Your task to perform on an android device: show emergency info Image 0: 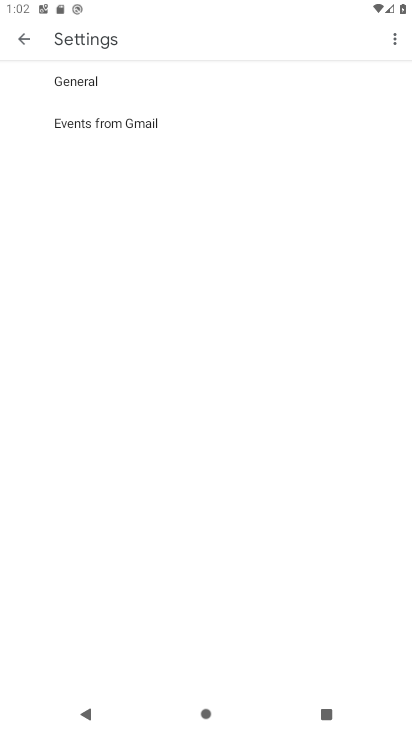
Step 0: drag from (221, 622) to (403, 511)
Your task to perform on an android device: show emergency info Image 1: 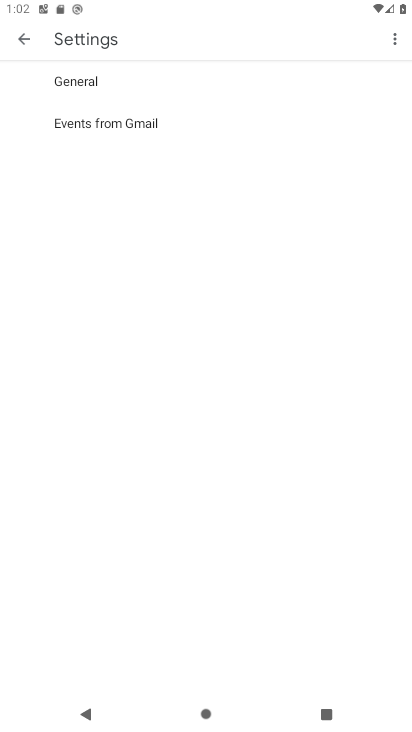
Step 1: press home button
Your task to perform on an android device: show emergency info Image 2: 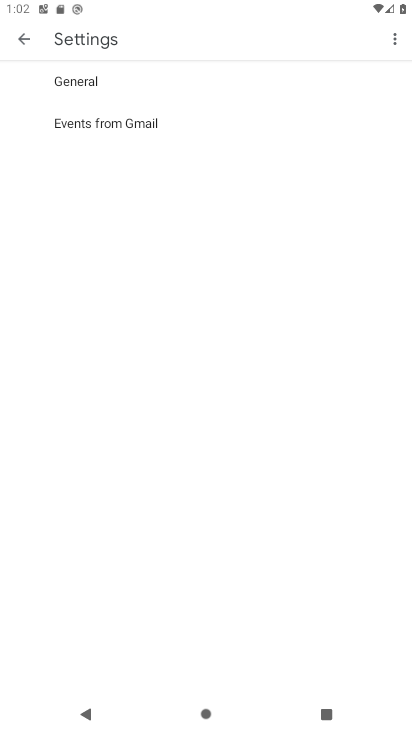
Step 2: drag from (403, 511) to (393, 675)
Your task to perform on an android device: show emergency info Image 3: 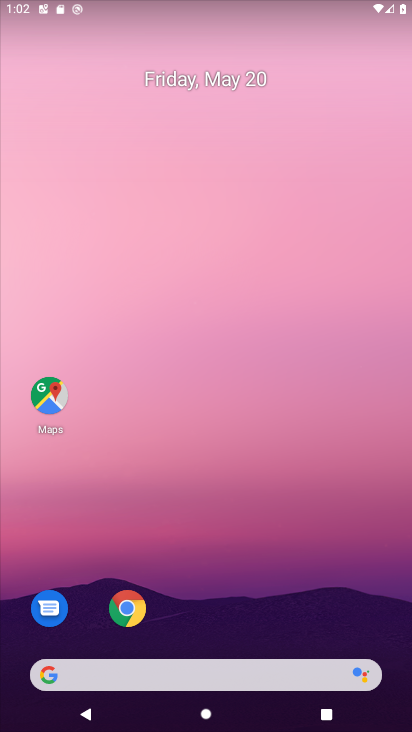
Step 3: drag from (244, 540) to (282, 255)
Your task to perform on an android device: show emergency info Image 4: 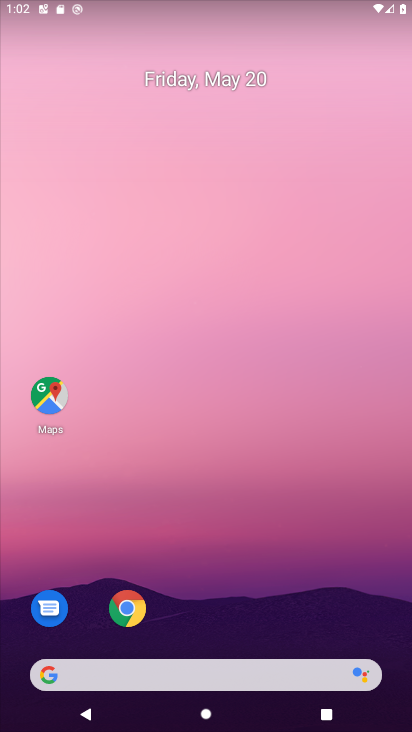
Step 4: drag from (277, 630) to (284, 132)
Your task to perform on an android device: show emergency info Image 5: 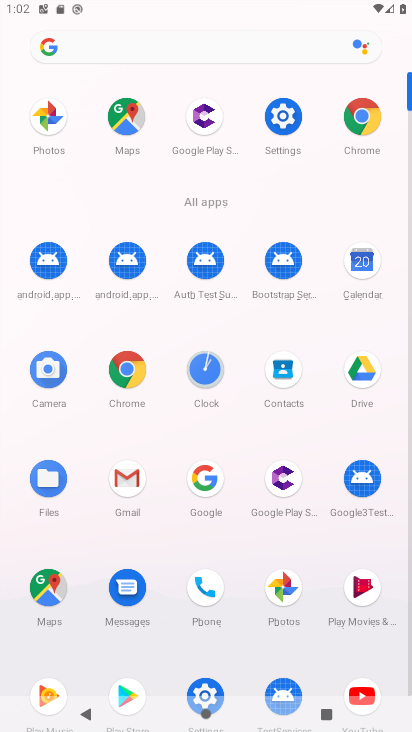
Step 5: click (282, 120)
Your task to perform on an android device: show emergency info Image 6: 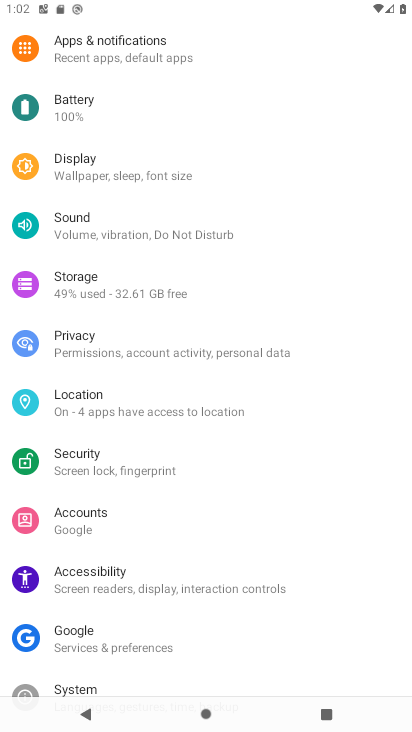
Step 6: drag from (285, 131) to (314, 443)
Your task to perform on an android device: show emergency info Image 7: 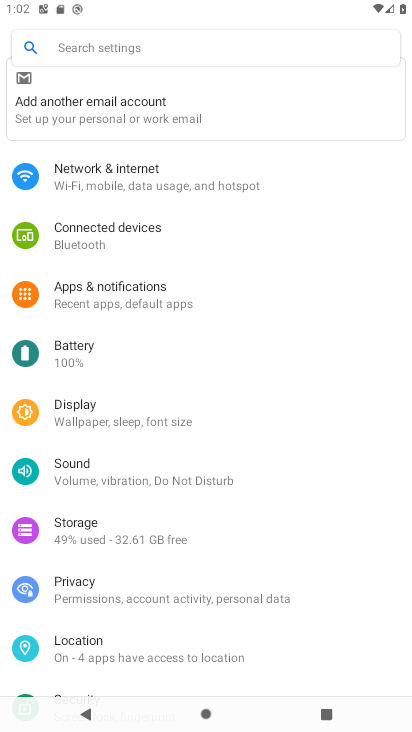
Step 7: click (212, 51)
Your task to perform on an android device: show emergency info Image 8: 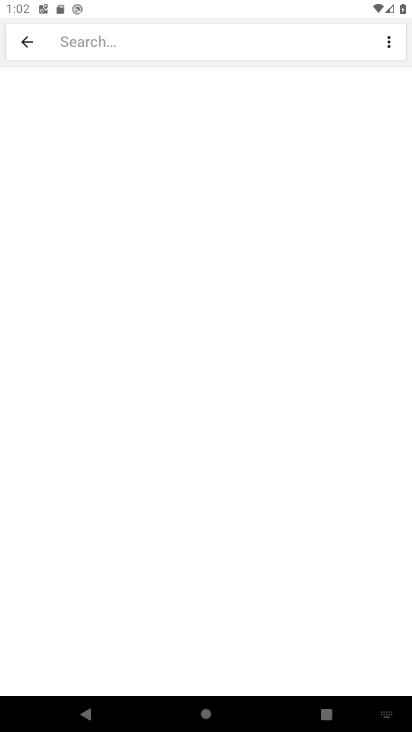
Step 8: type "emergency info"
Your task to perform on an android device: show emergency info Image 9: 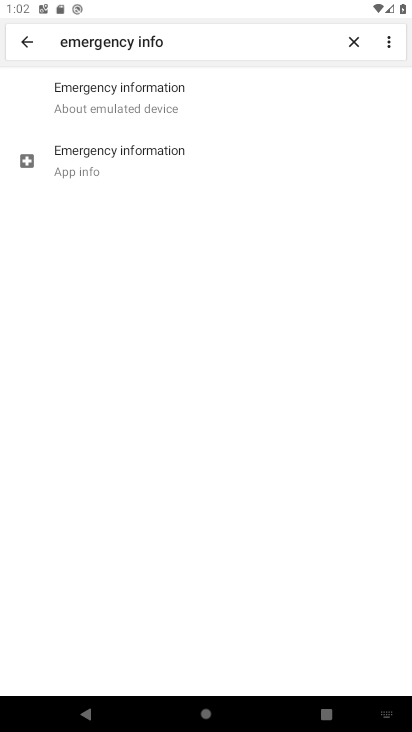
Step 9: click (122, 167)
Your task to perform on an android device: show emergency info Image 10: 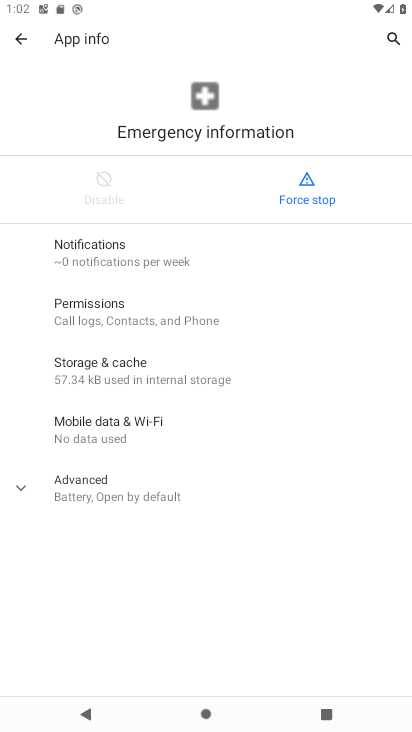
Step 10: task complete